Your task to perform on an android device: Go to Reddit.com Image 0: 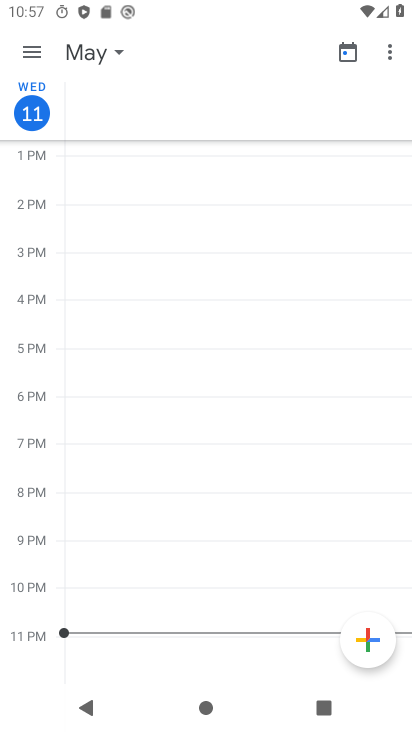
Step 0: press home button
Your task to perform on an android device: Go to Reddit.com Image 1: 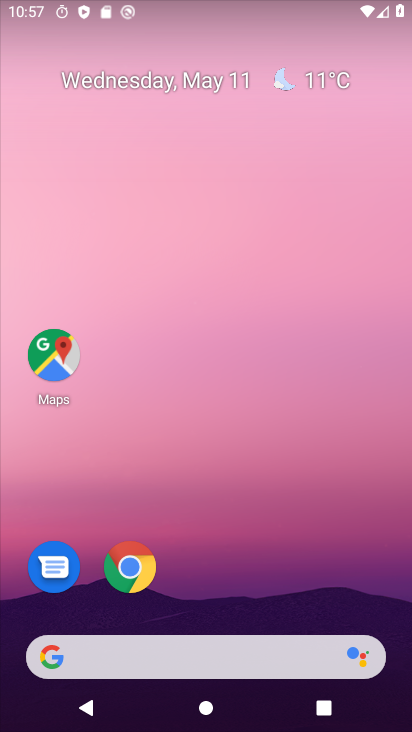
Step 1: drag from (301, 509) to (342, 0)
Your task to perform on an android device: Go to Reddit.com Image 2: 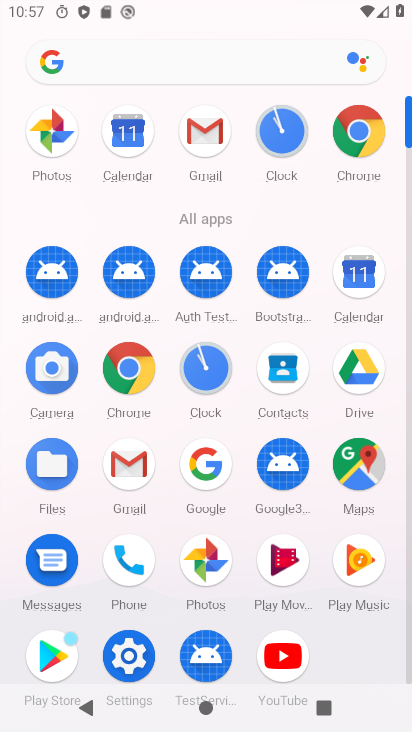
Step 2: click (361, 139)
Your task to perform on an android device: Go to Reddit.com Image 3: 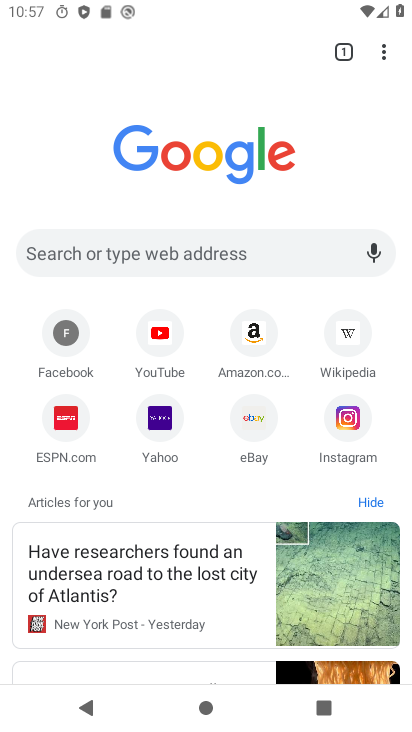
Step 3: click (183, 257)
Your task to perform on an android device: Go to Reddit.com Image 4: 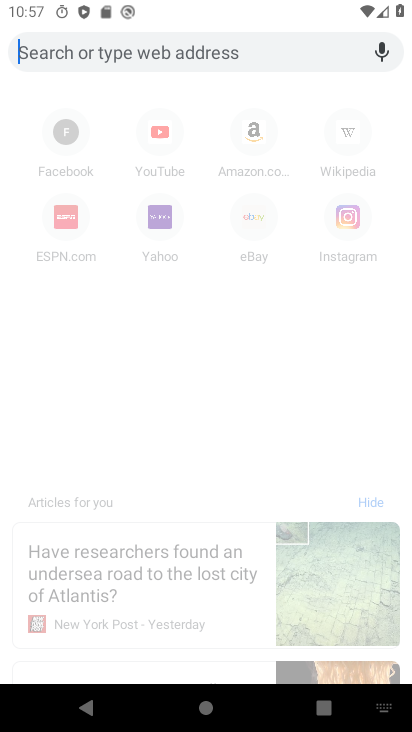
Step 4: type "reddit"
Your task to perform on an android device: Go to Reddit.com Image 5: 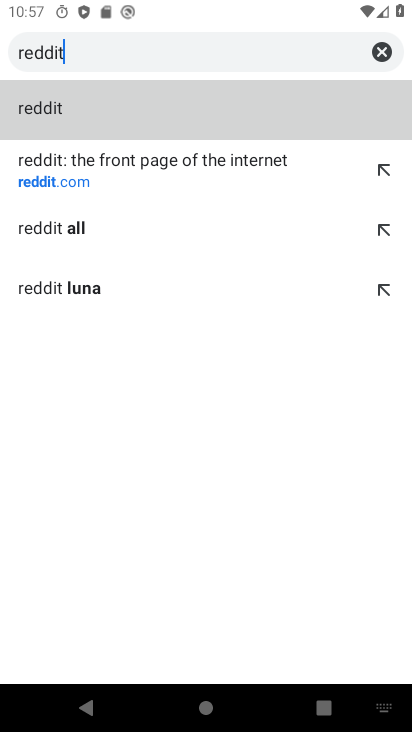
Step 5: click (103, 175)
Your task to perform on an android device: Go to Reddit.com Image 6: 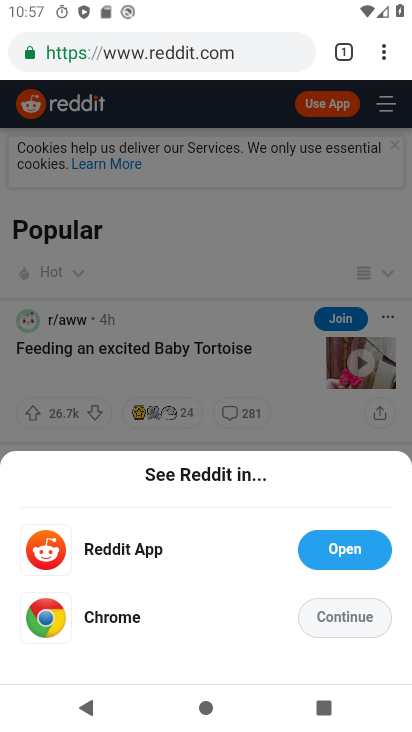
Step 6: task complete